Your task to perform on an android device: View the shopping cart on ebay. Add lenovo thinkpad to the cart on ebay, then select checkout. Image 0: 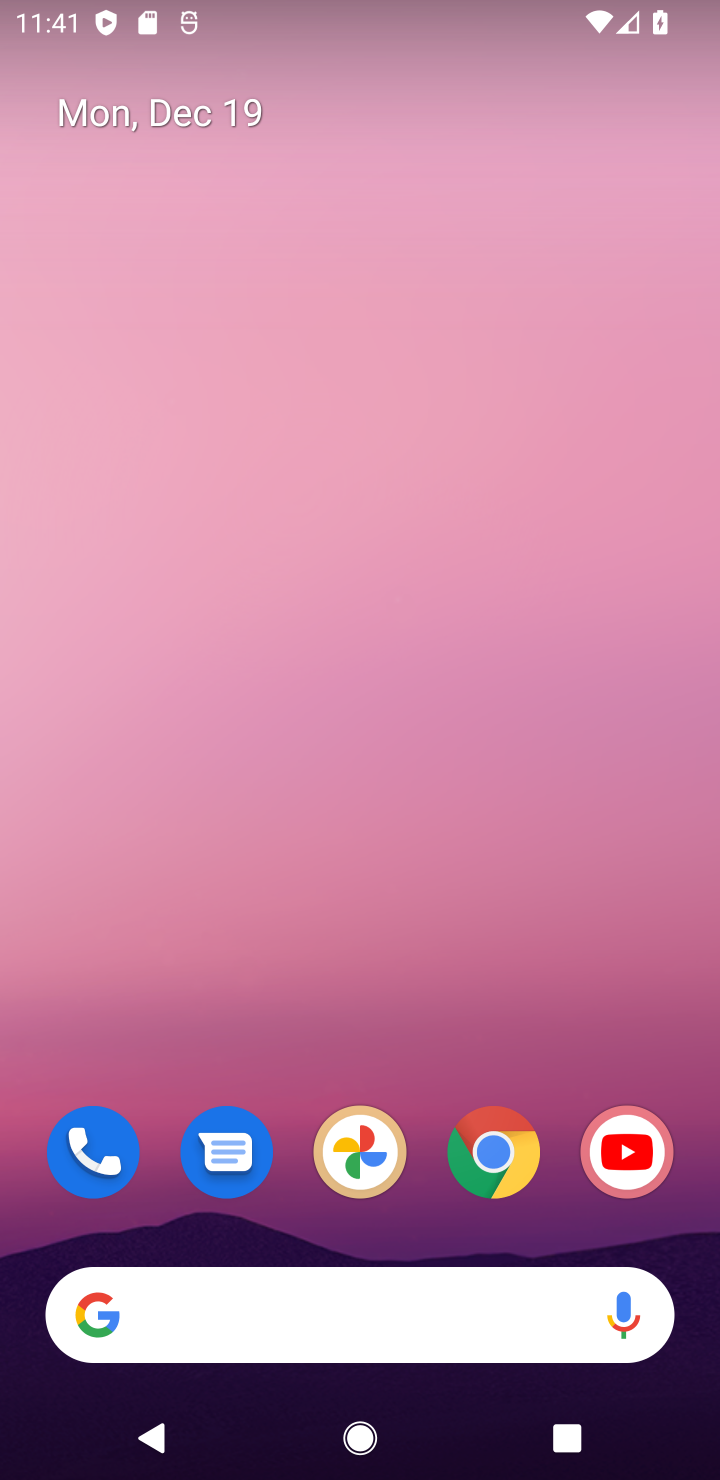
Step 0: click (473, 1139)
Your task to perform on an android device: View the shopping cart on ebay. Add lenovo thinkpad to the cart on ebay, then select checkout. Image 1: 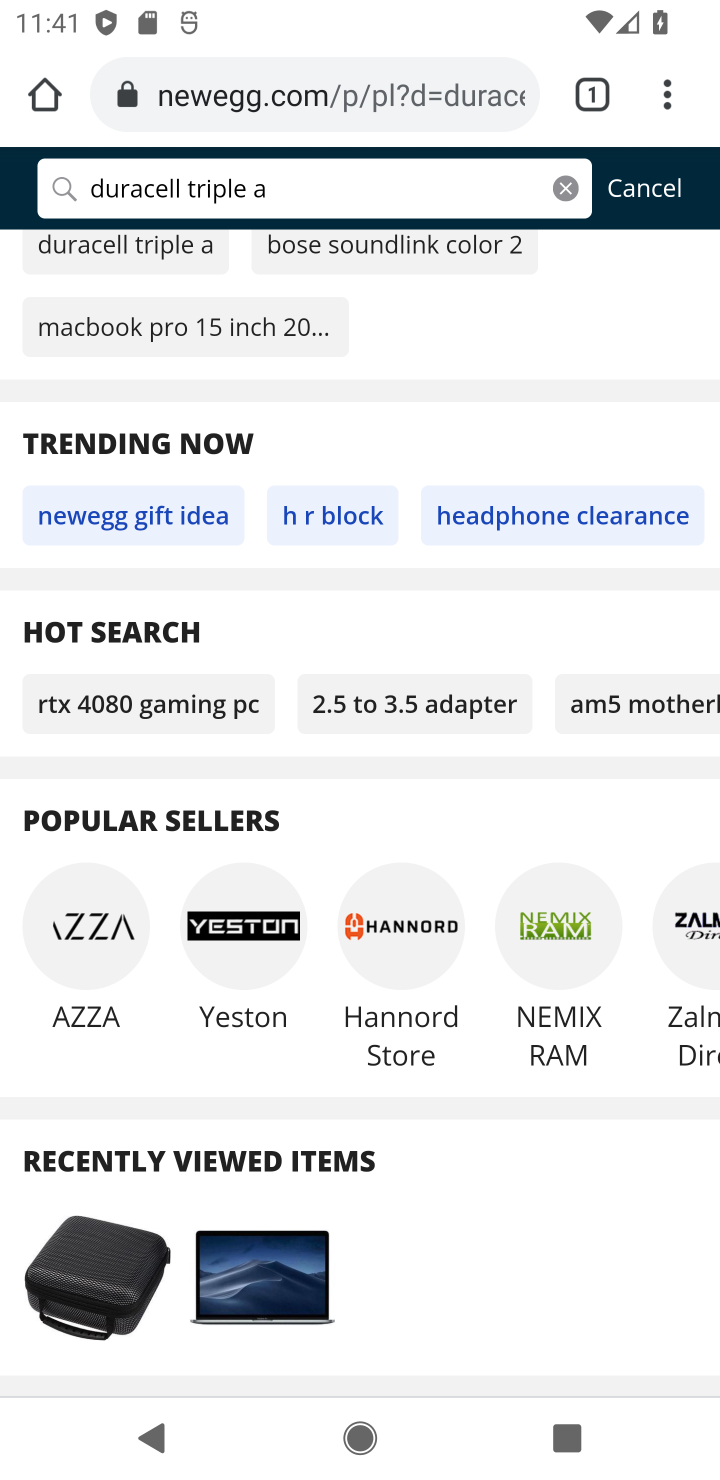
Step 1: click (353, 106)
Your task to perform on an android device: View the shopping cart on ebay. Add lenovo thinkpad to the cart on ebay, then select checkout. Image 2: 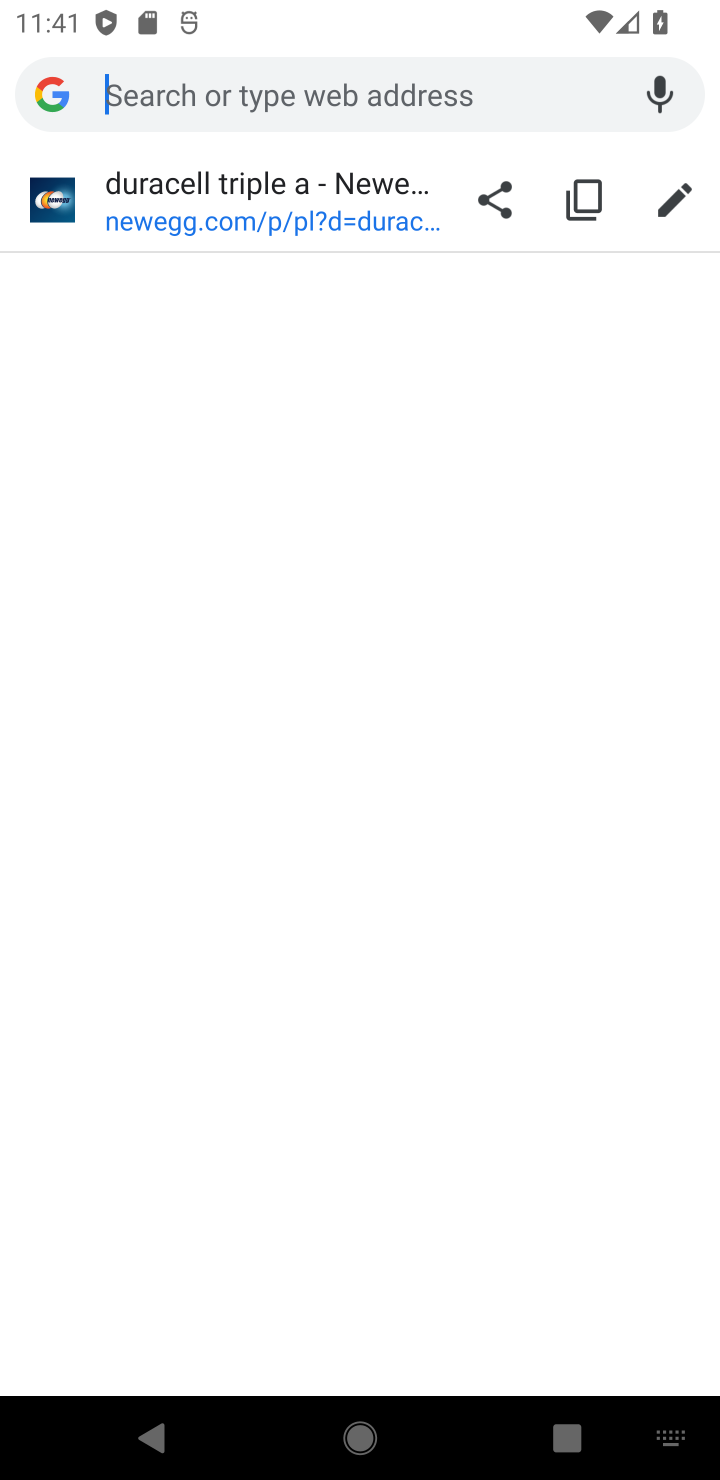
Step 2: type "ebay"
Your task to perform on an android device: View the shopping cart on ebay. Add lenovo thinkpad to the cart on ebay, then select checkout. Image 3: 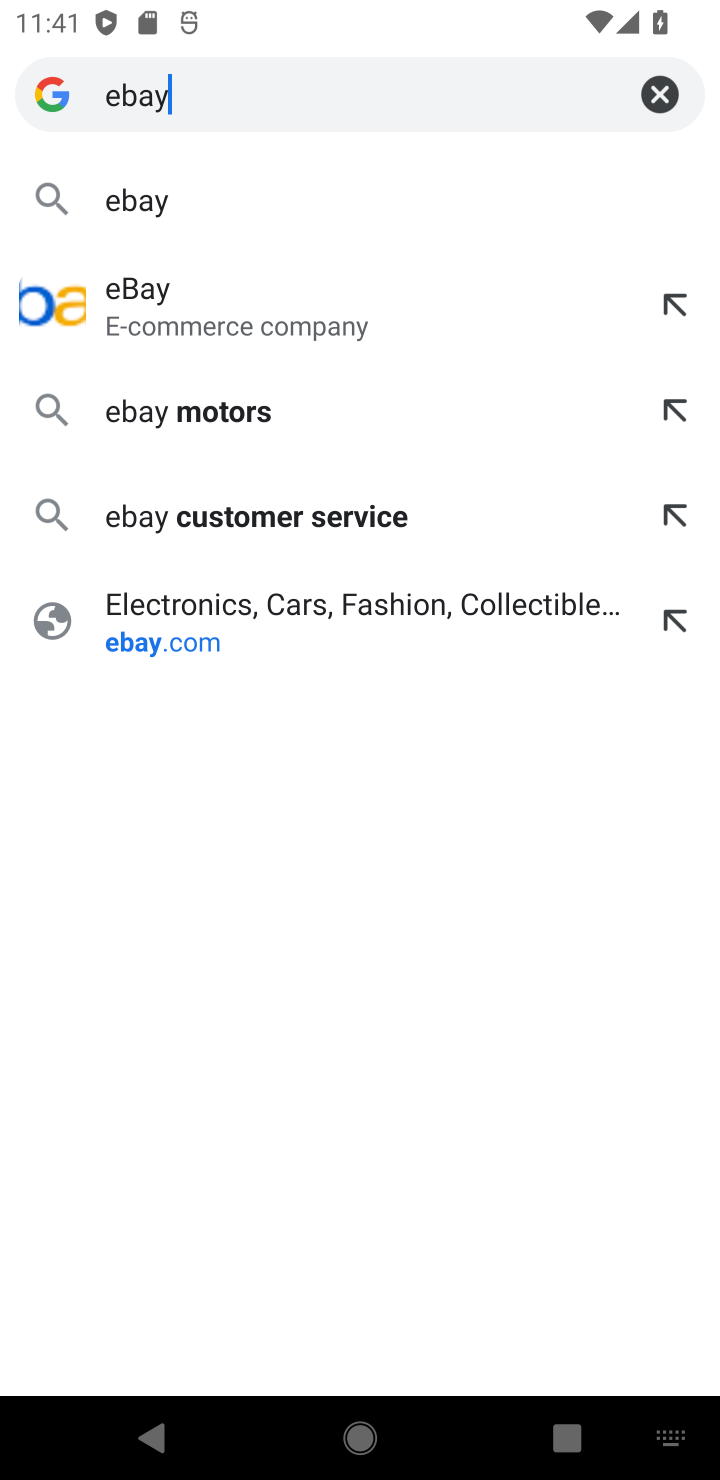
Step 3: click (234, 295)
Your task to perform on an android device: View the shopping cart on ebay. Add lenovo thinkpad to the cart on ebay, then select checkout. Image 4: 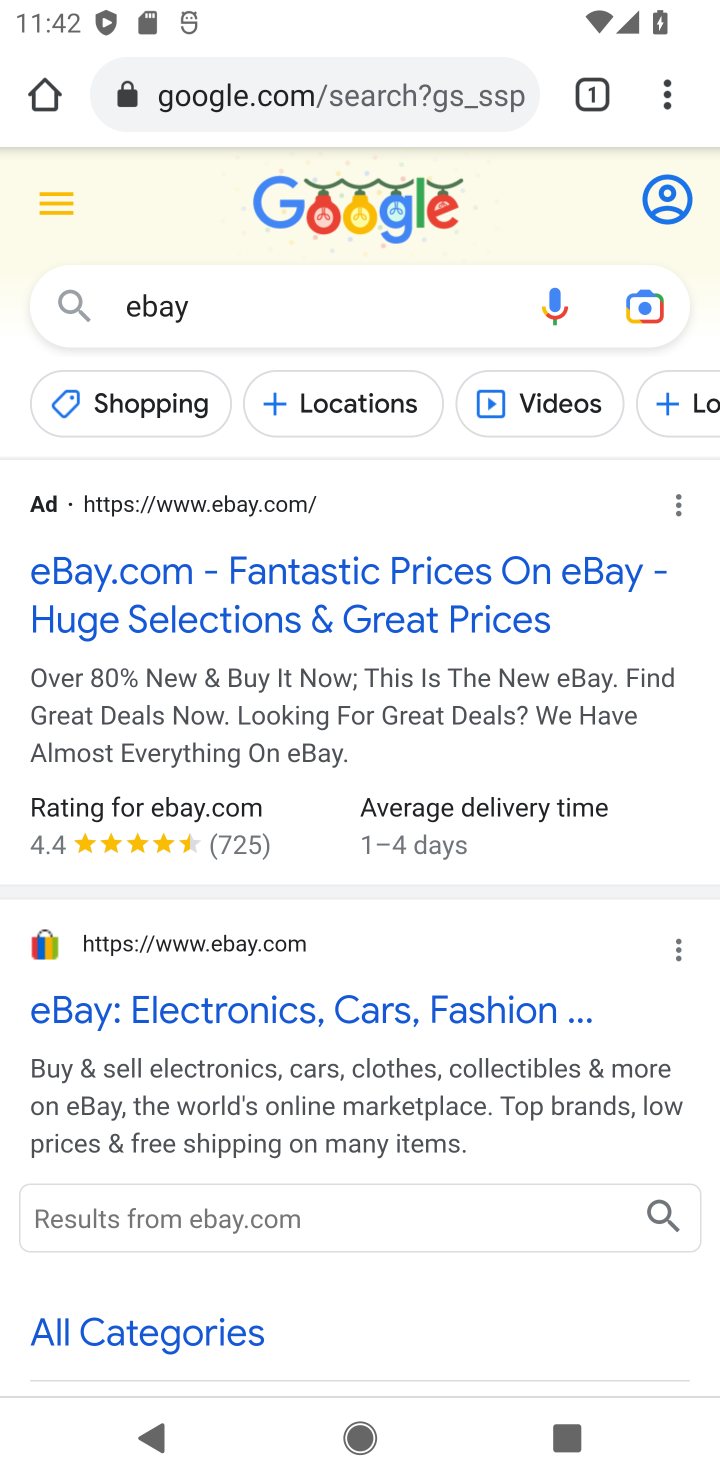
Step 4: click (156, 1006)
Your task to perform on an android device: View the shopping cart on ebay. Add lenovo thinkpad to the cart on ebay, then select checkout. Image 5: 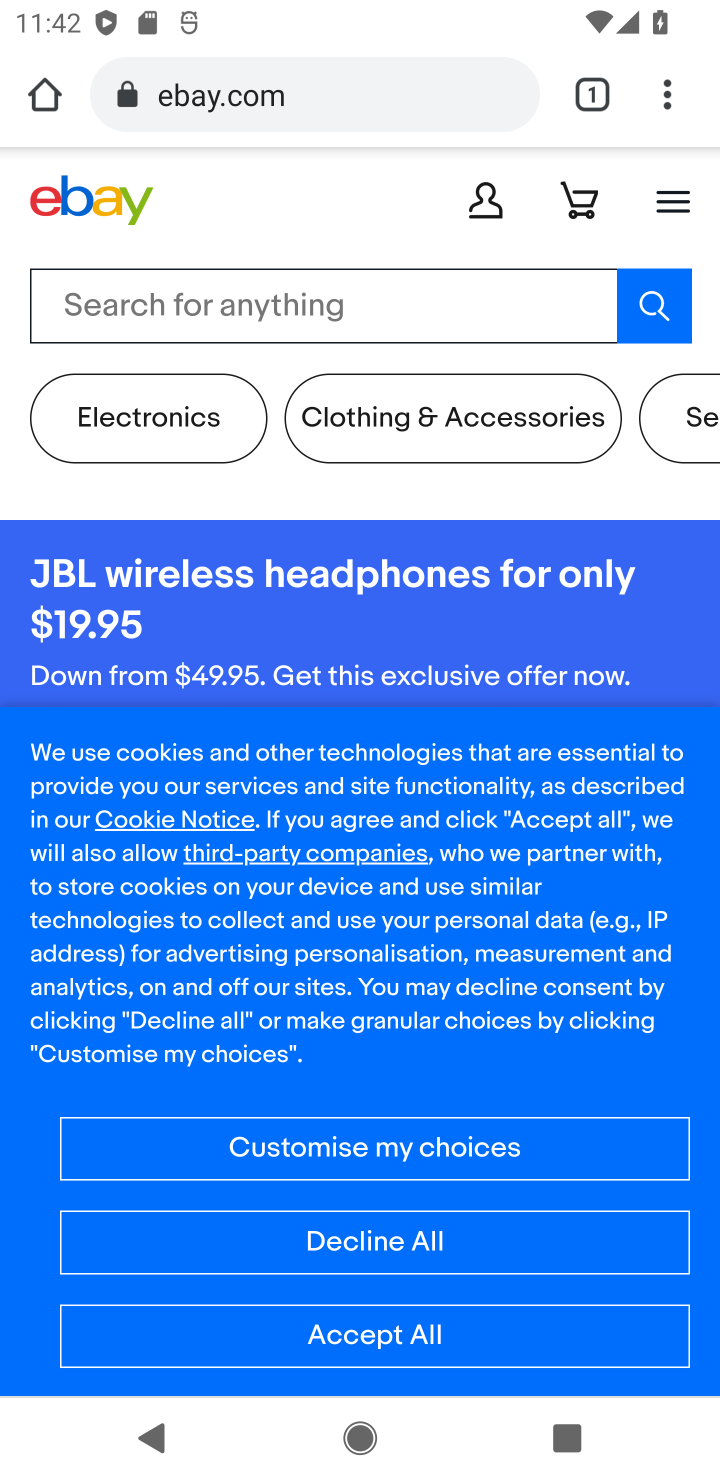
Step 5: click (386, 1337)
Your task to perform on an android device: View the shopping cart on ebay. Add lenovo thinkpad to the cart on ebay, then select checkout. Image 6: 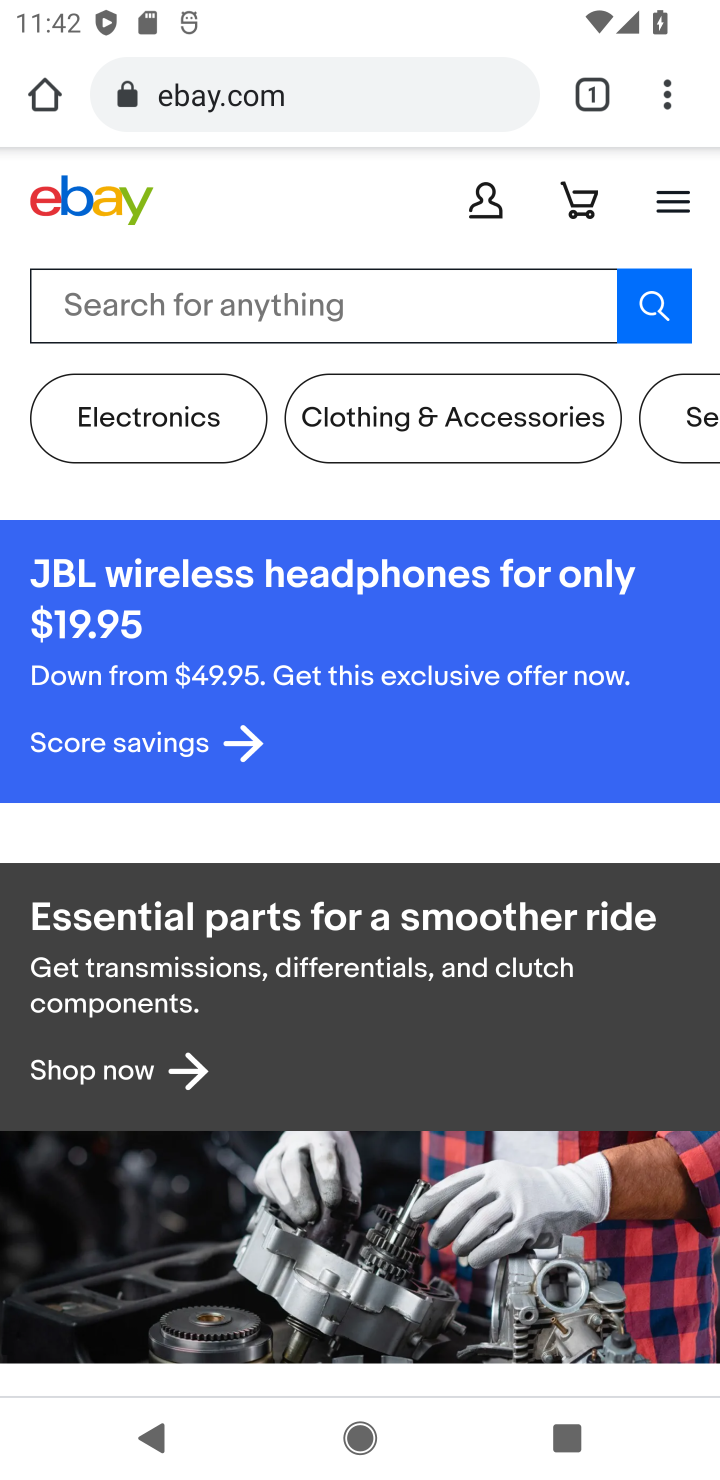
Step 6: click (469, 305)
Your task to perform on an android device: View the shopping cart on ebay. Add lenovo thinkpad to the cart on ebay, then select checkout. Image 7: 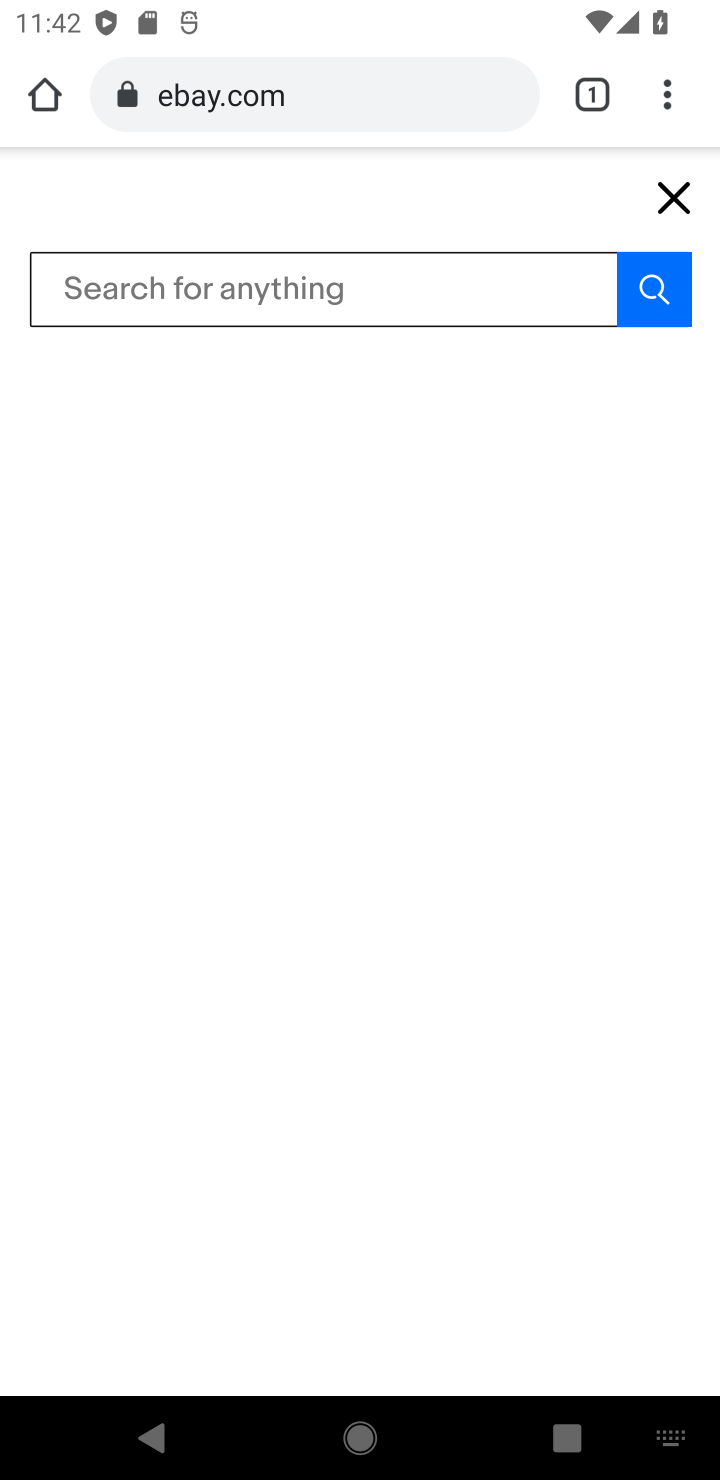
Step 7: type "lenovo thinkpad"
Your task to perform on an android device: View the shopping cart on ebay. Add lenovo thinkpad to the cart on ebay, then select checkout. Image 8: 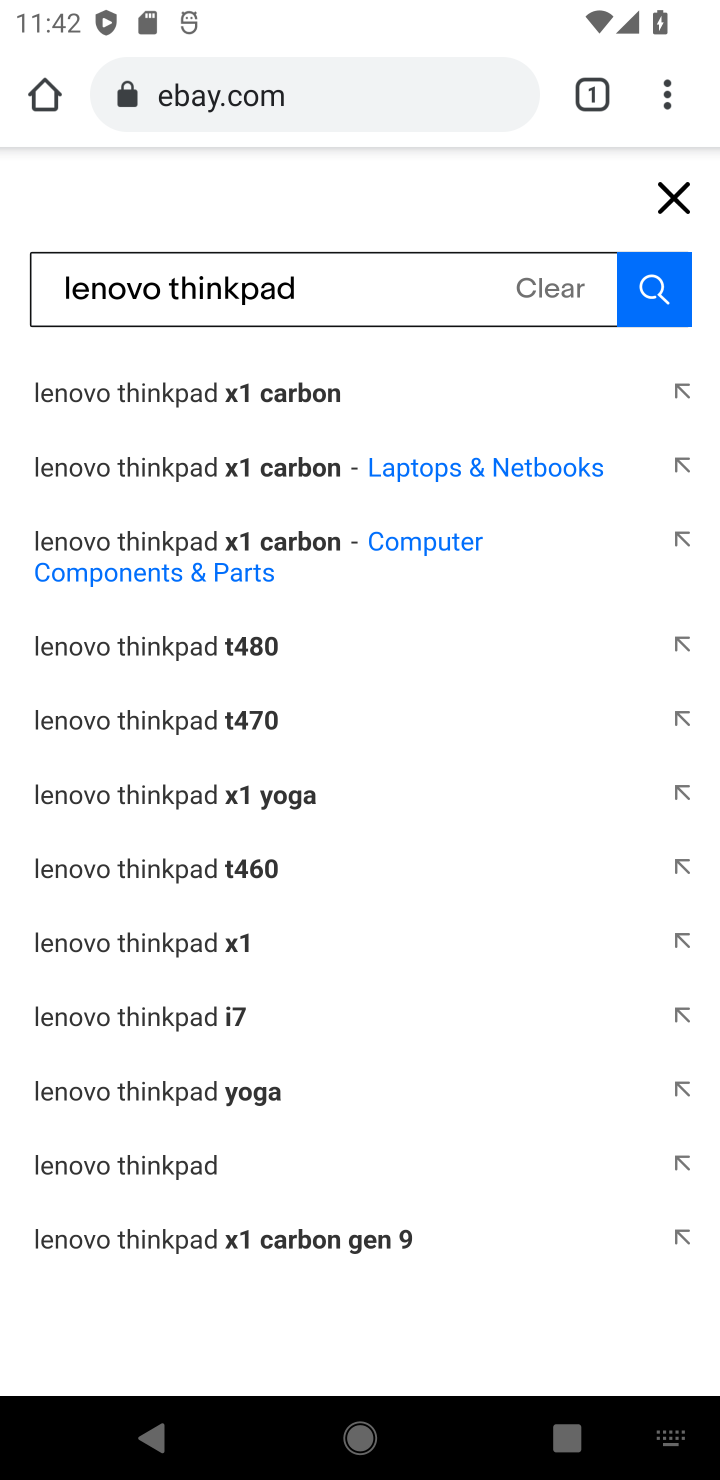
Step 8: click (214, 402)
Your task to perform on an android device: View the shopping cart on ebay. Add lenovo thinkpad to the cart on ebay, then select checkout. Image 9: 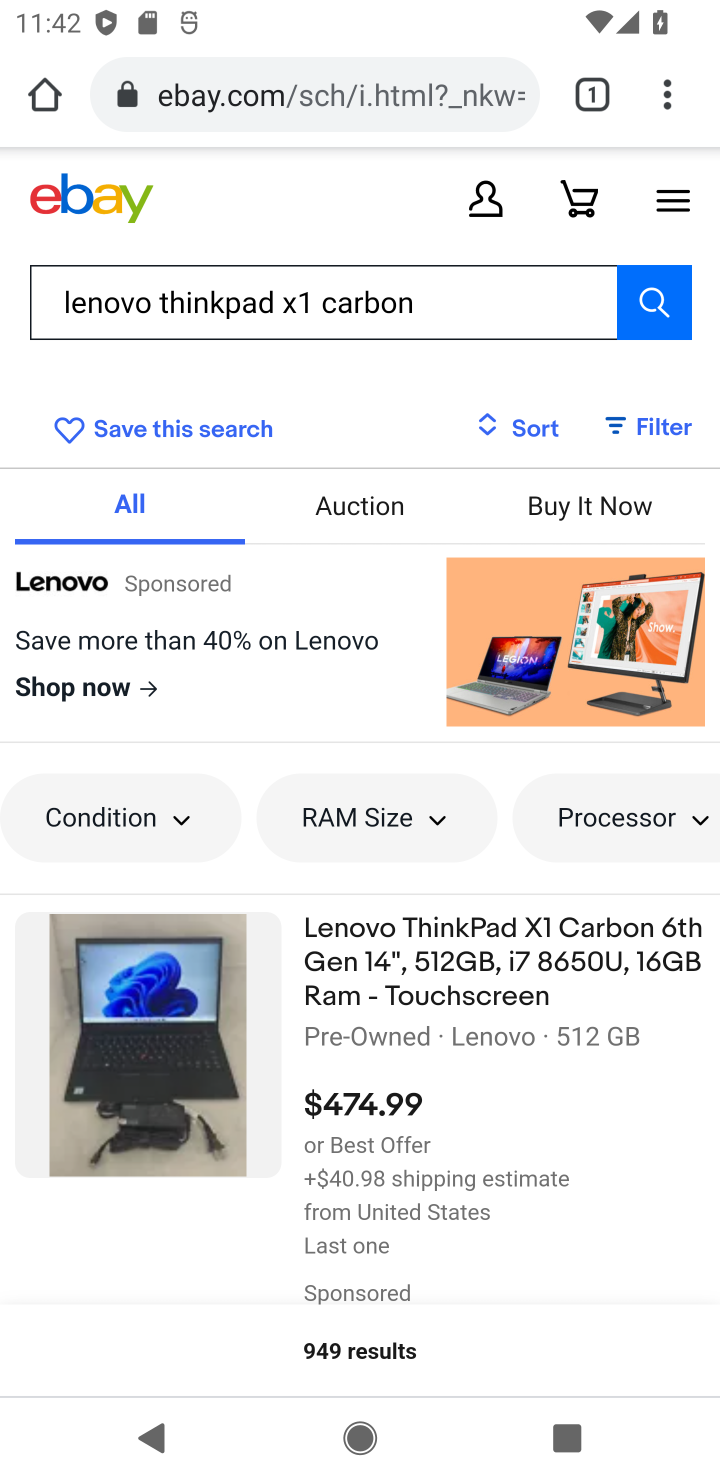
Step 9: click (511, 991)
Your task to perform on an android device: View the shopping cart on ebay. Add lenovo thinkpad to the cart on ebay, then select checkout. Image 10: 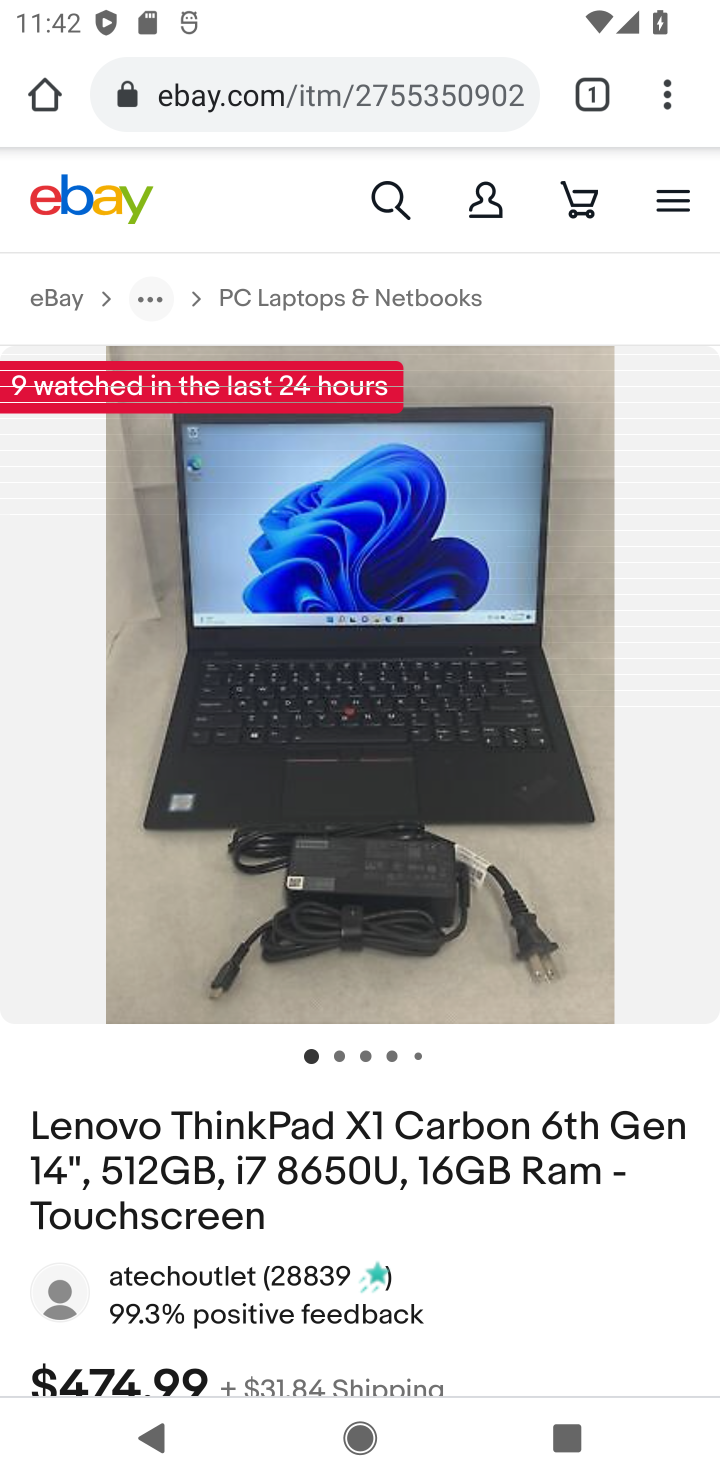
Step 10: drag from (420, 1301) to (490, 254)
Your task to perform on an android device: View the shopping cart on ebay. Add lenovo thinkpad to the cart on ebay, then select checkout. Image 11: 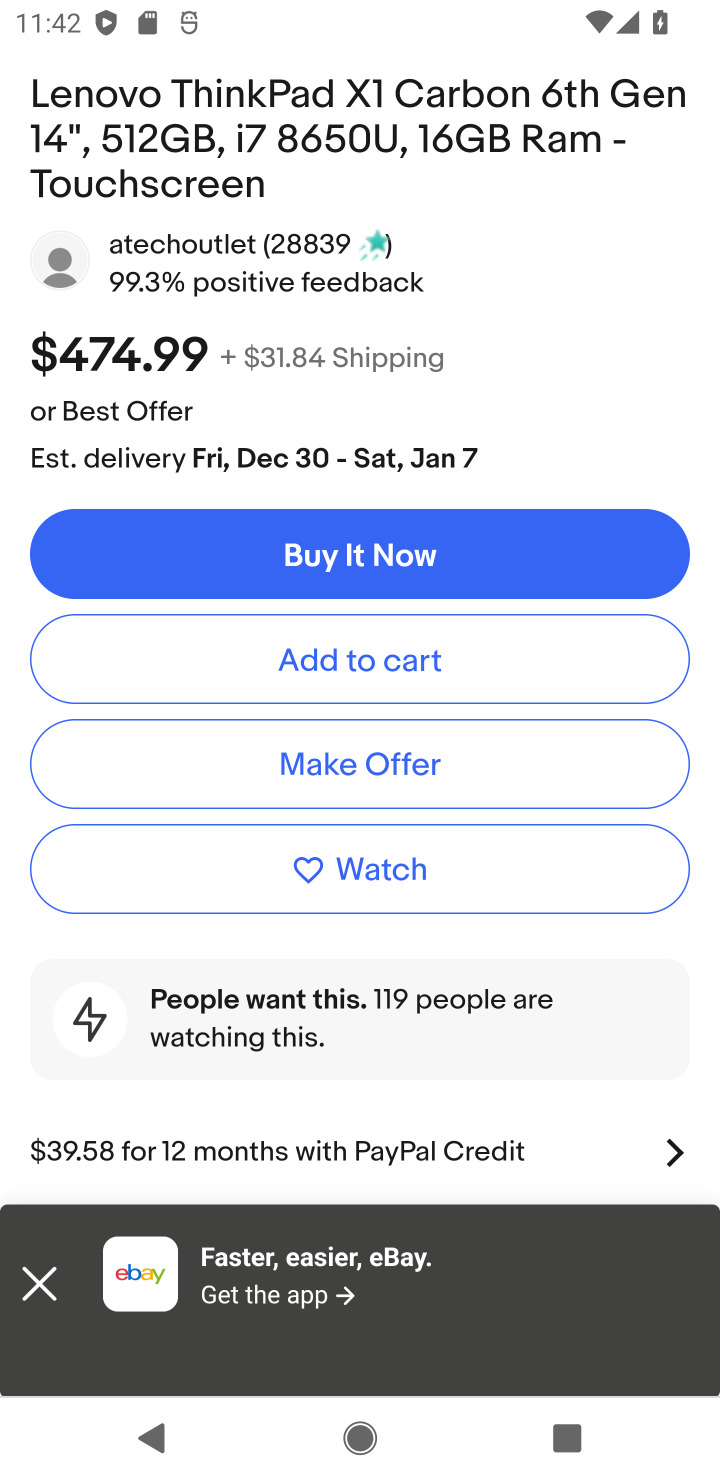
Step 11: click (448, 659)
Your task to perform on an android device: View the shopping cart on ebay. Add lenovo thinkpad to the cart on ebay, then select checkout. Image 12: 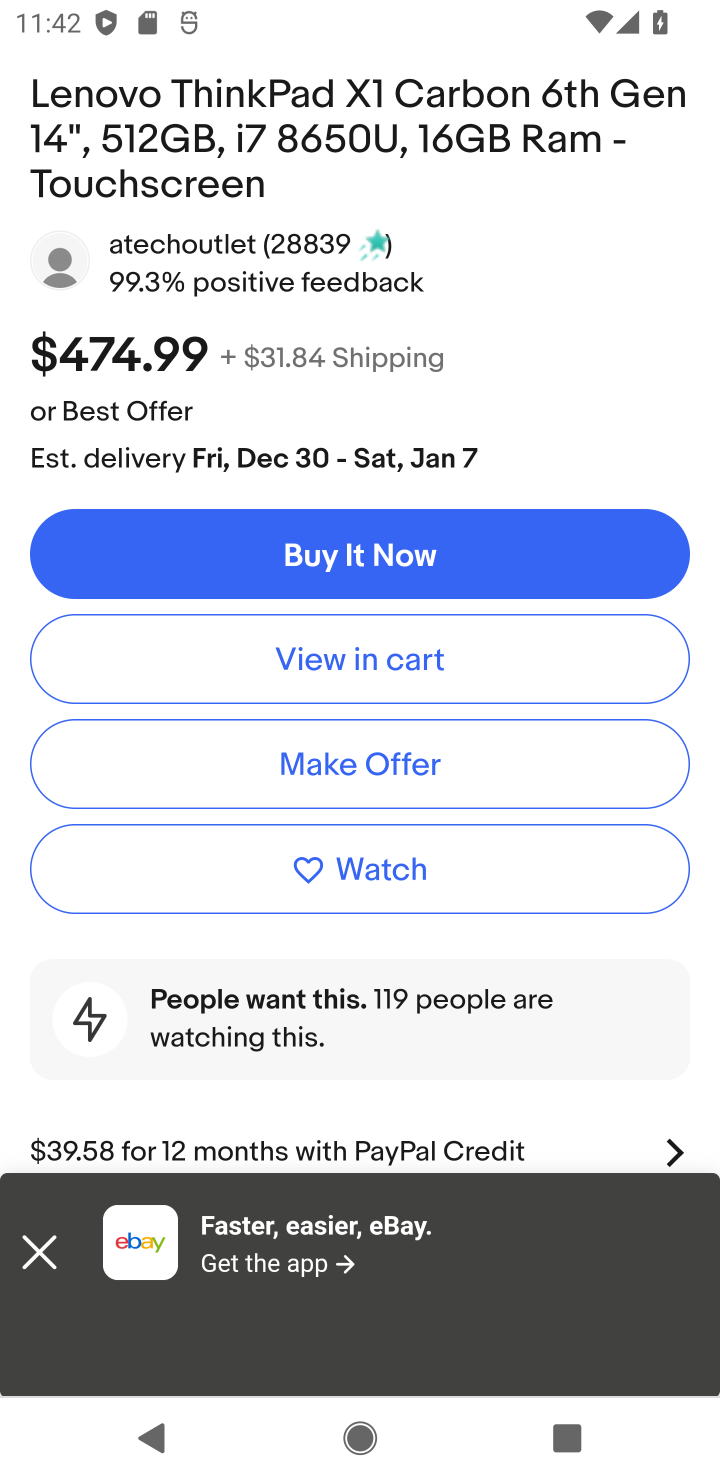
Step 12: task complete